Your task to perform on an android device: empty trash in the gmail app Image 0: 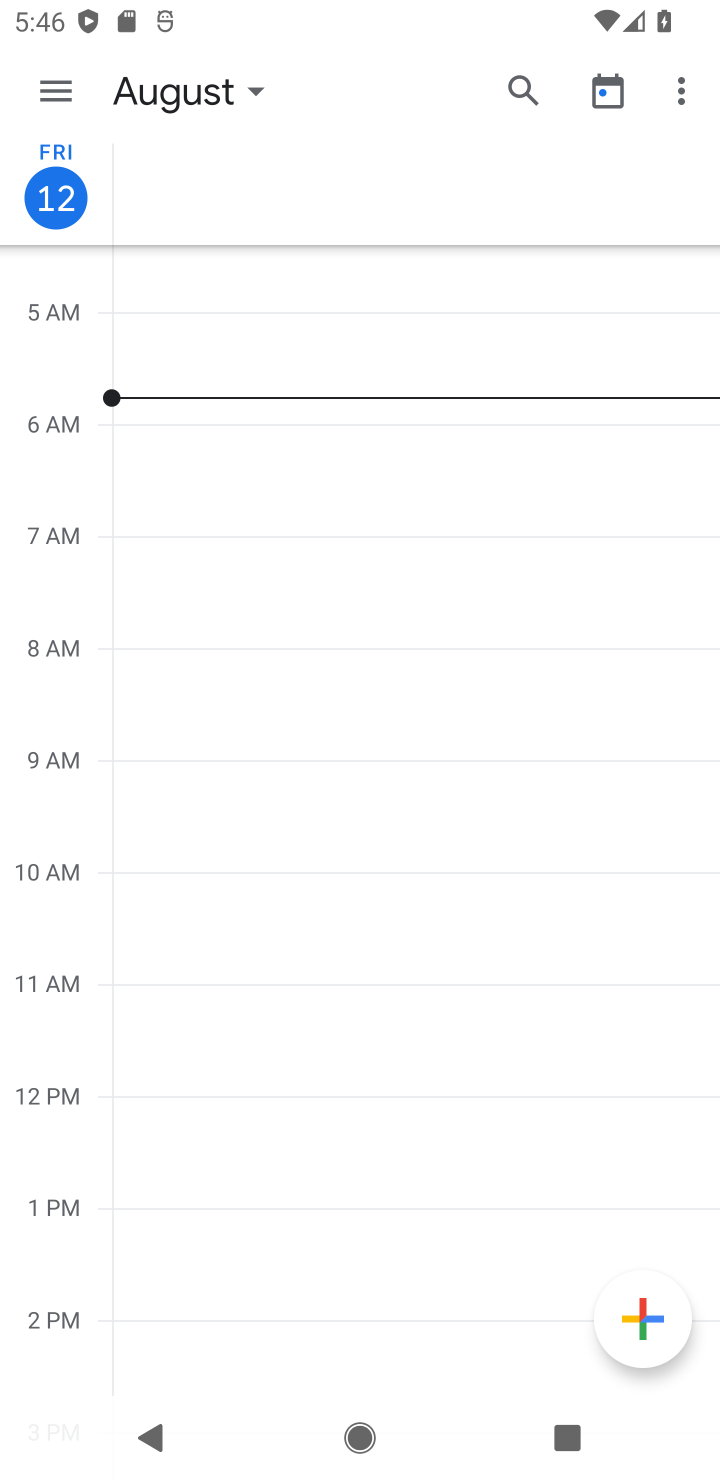
Step 0: press home button
Your task to perform on an android device: empty trash in the gmail app Image 1: 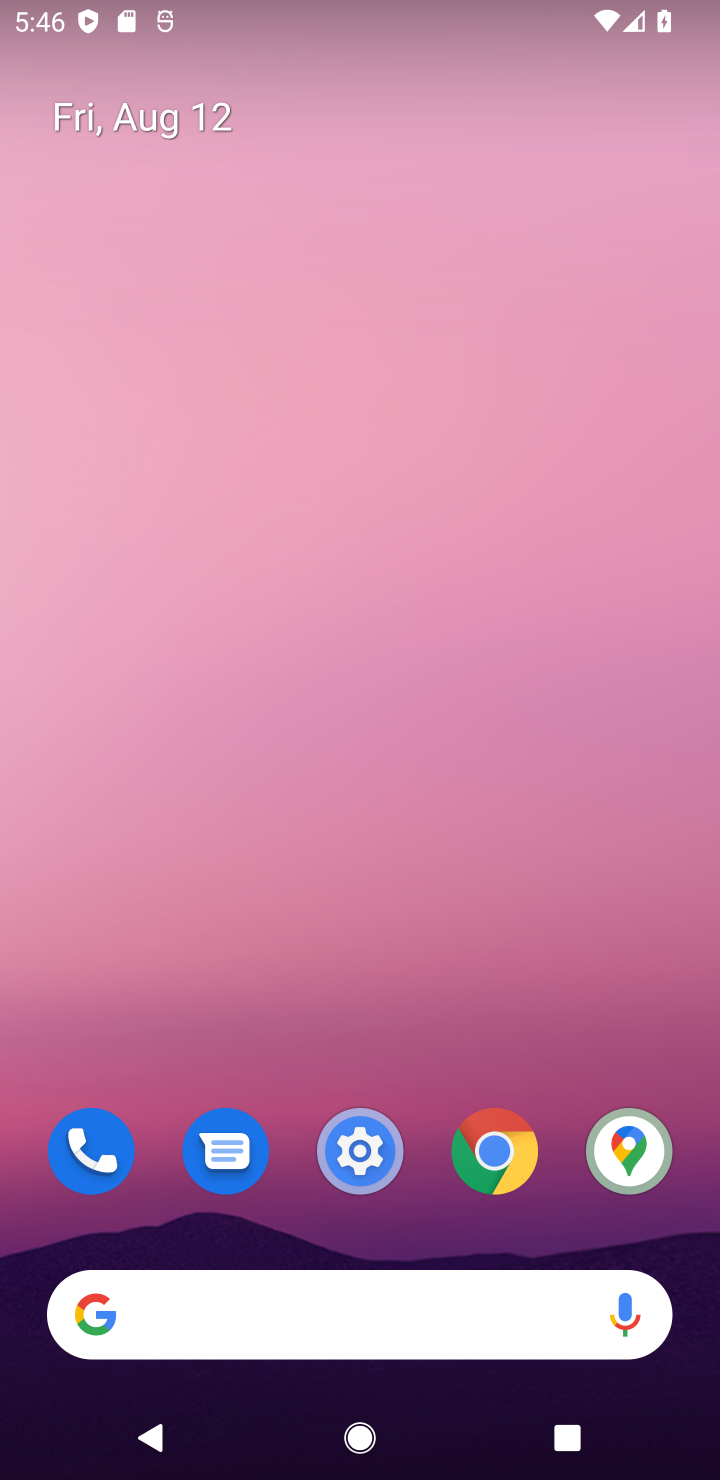
Step 1: drag from (605, 1001) to (316, 1)
Your task to perform on an android device: empty trash in the gmail app Image 2: 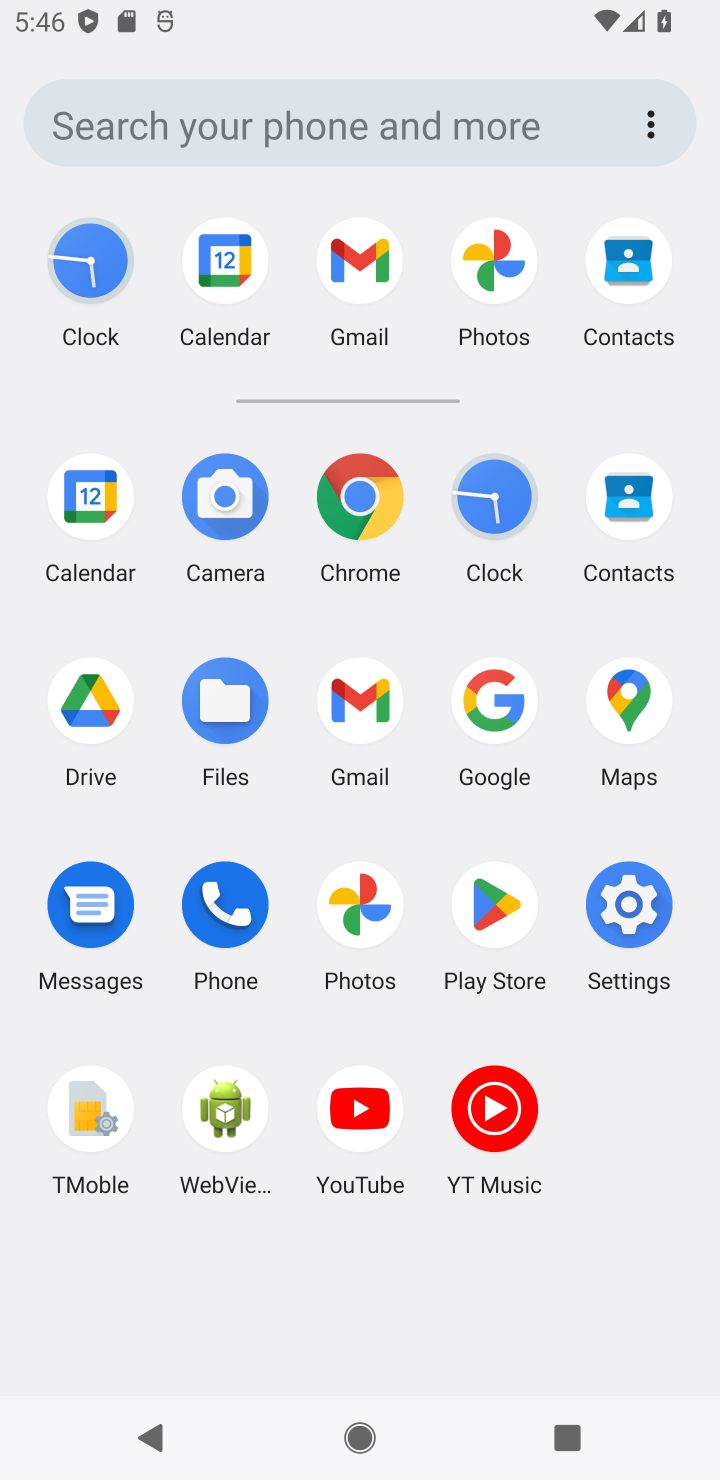
Step 2: click (358, 723)
Your task to perform on an android device: empty trash in the gmail app Image 3: 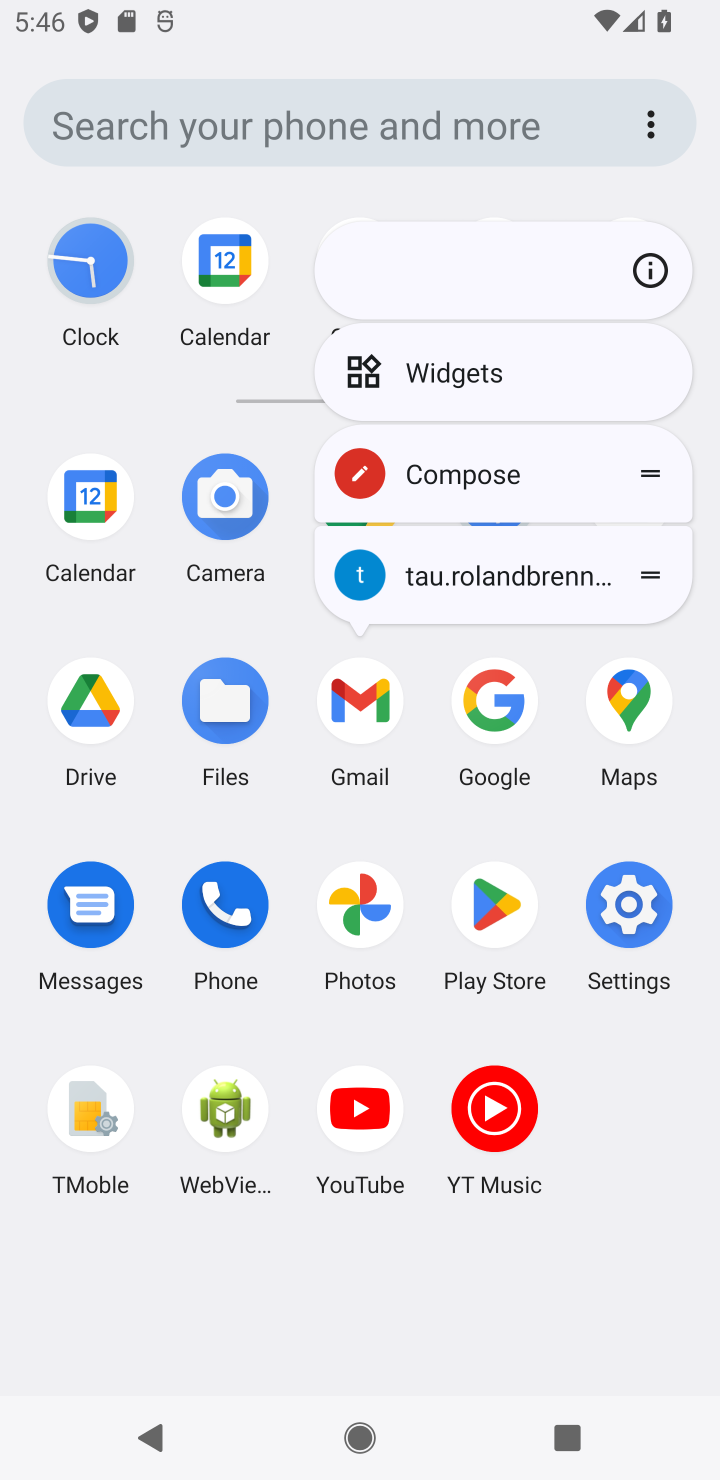
Step 3: click (349, 714)
Your task to perform on an android device: empty trash in the gmail app Image 4: 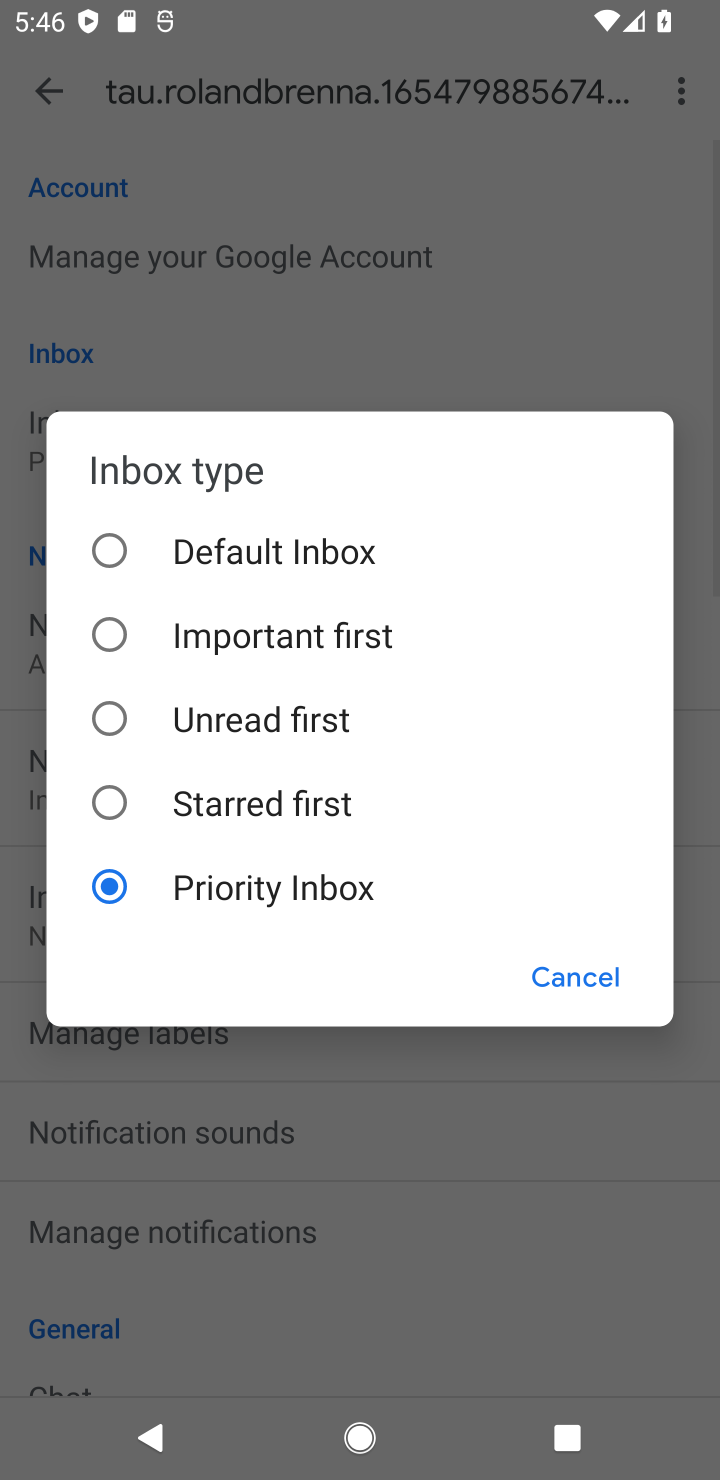
Step 4: click (618, 992)
Your task to perform on an android device: empty trash in the gmail app Image 5: 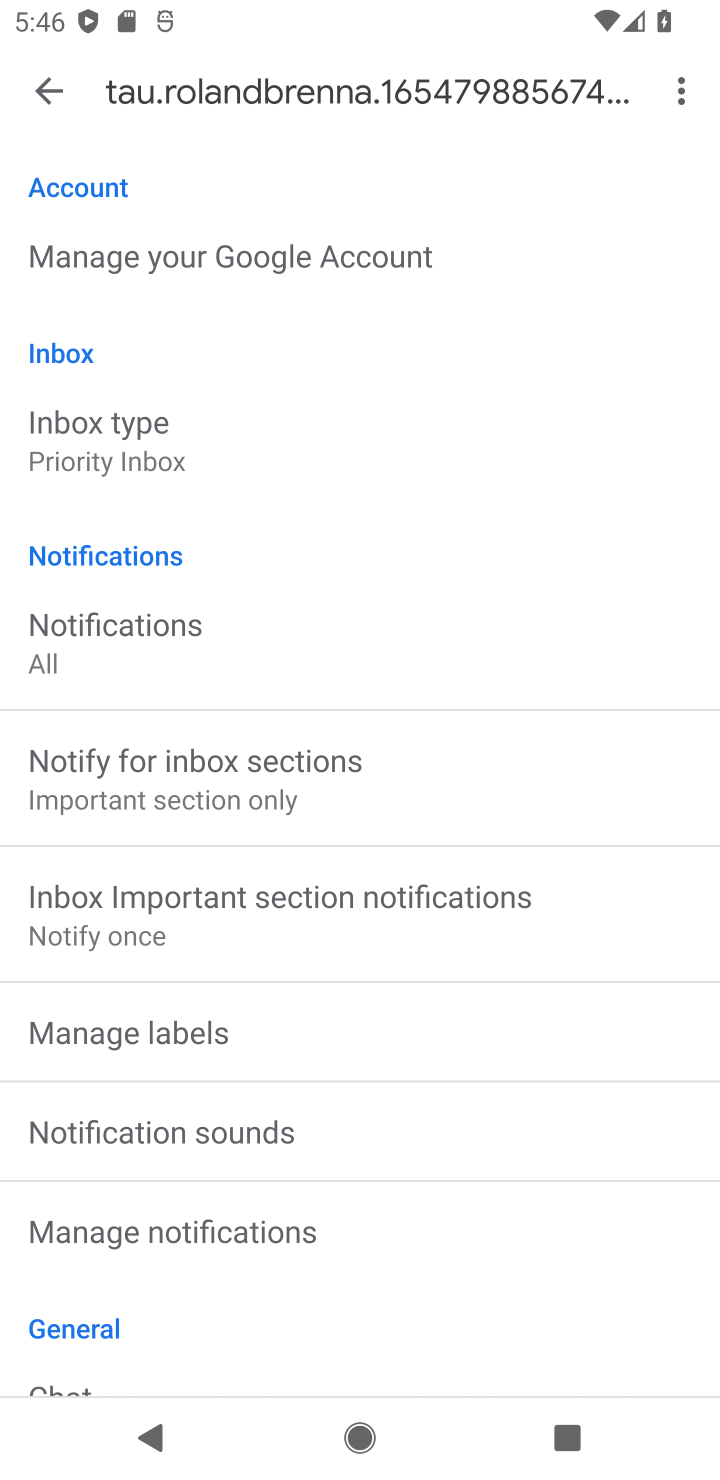
Step 5: click (28, 67)
Your task to perform on an android device: empty trash in the gmail app Image 6: 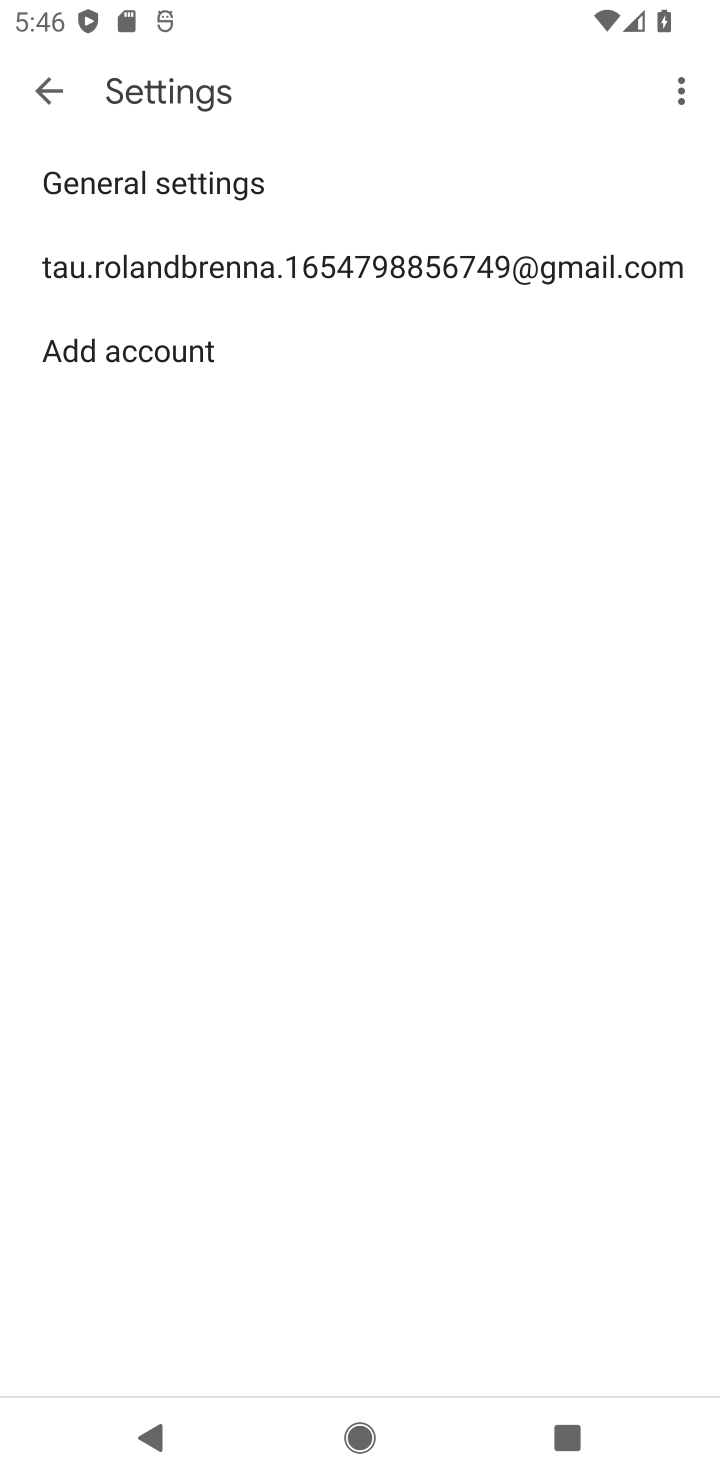
Step 6: click (28, 67)
Your task to perform on an android device: empty trash in the gmail app Image 7: 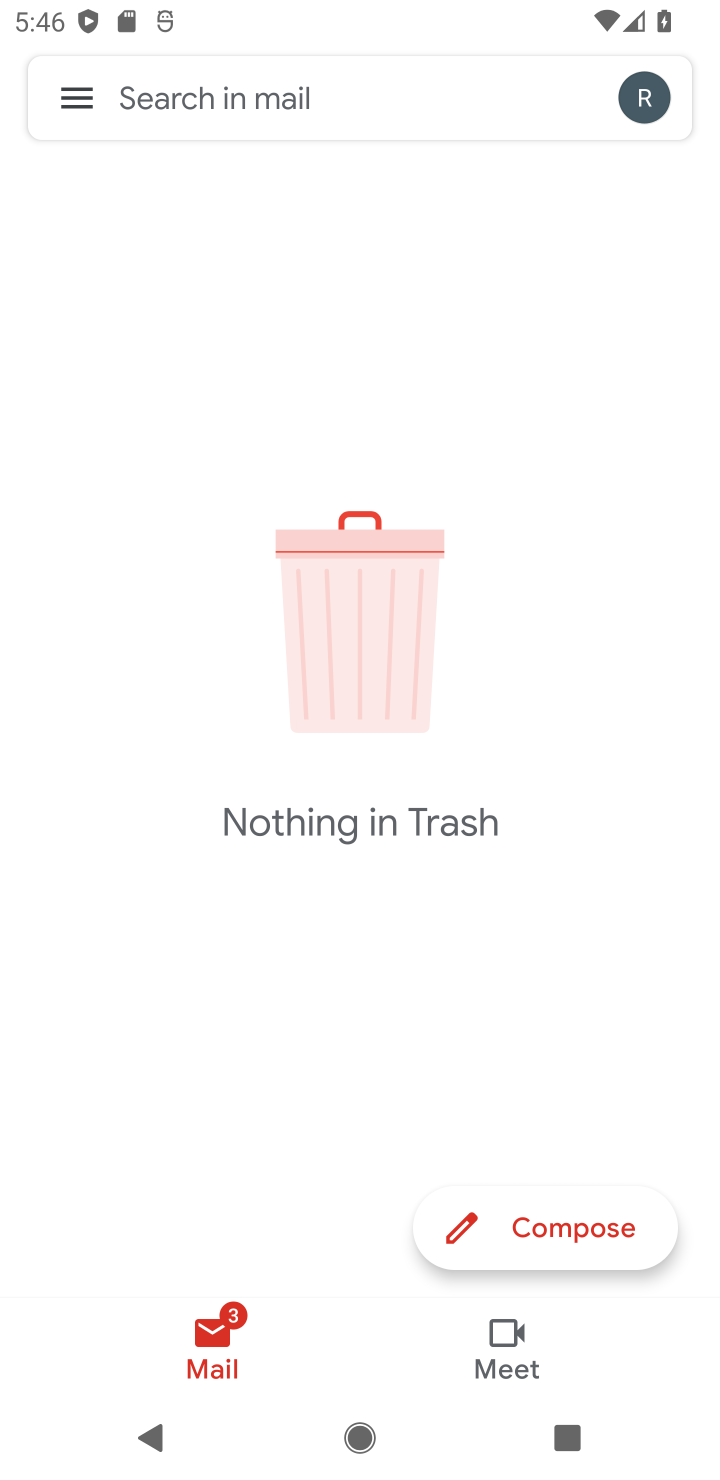
Step 7: task complete